Your task to perform on an android device: Show me productivity apps on the Play Store Image 0: 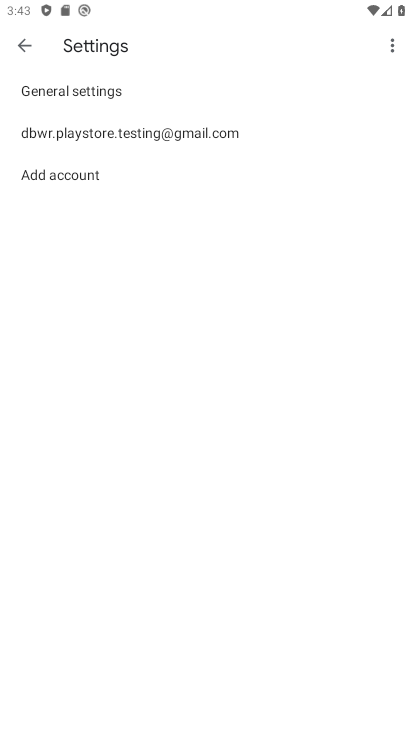
Step 0: press home button
Your task to perform on an android device: Show me productivity apps on the Play Store Image 1: 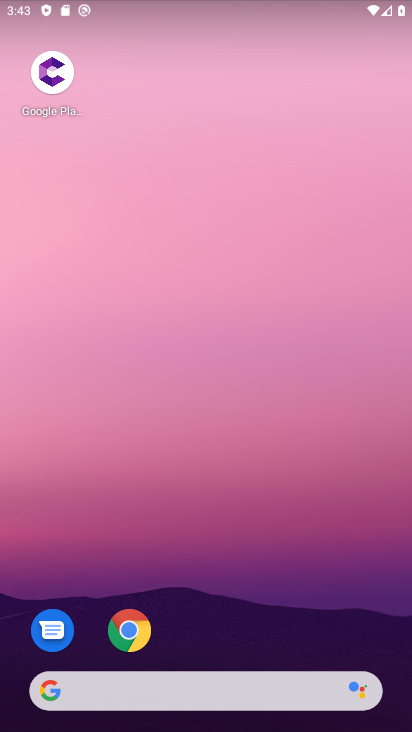
Step 1: drag from (296, 613) to (271, 21)
Your task to perform on an android device: Show me productivity apps on the Play Store Image 2: 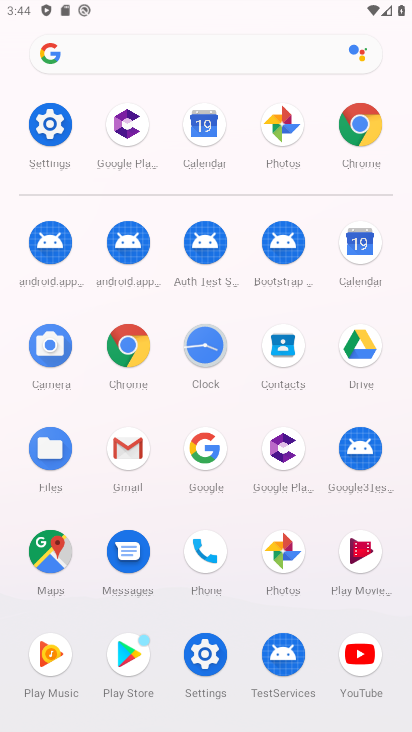
Step 2: click (128, 650)
Your task to perform on an android device: Show me productivity apps on the Play Store Image 3: 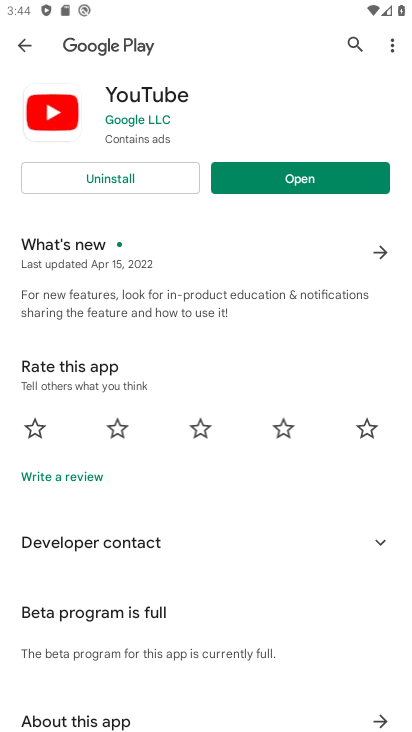
Step 3: drag from (267, 403) to (299, 582)
Your task to perform on an android device: Show me productivity apps on the Play Store Image 4: 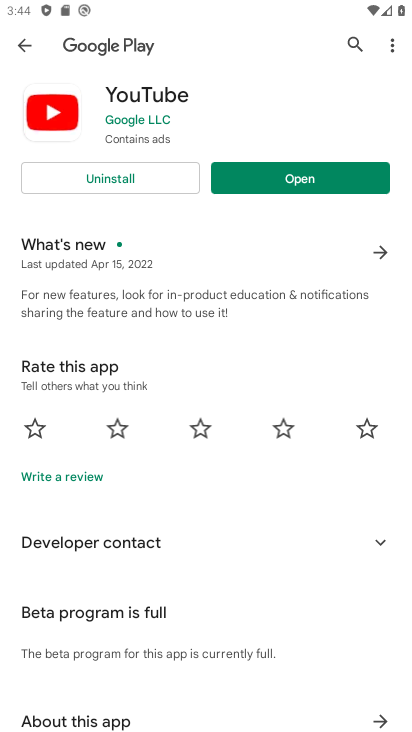
Step 4: click (19, 56)
Your task to perform on an android device: Show me productivity apps on the Play Store Image 5: 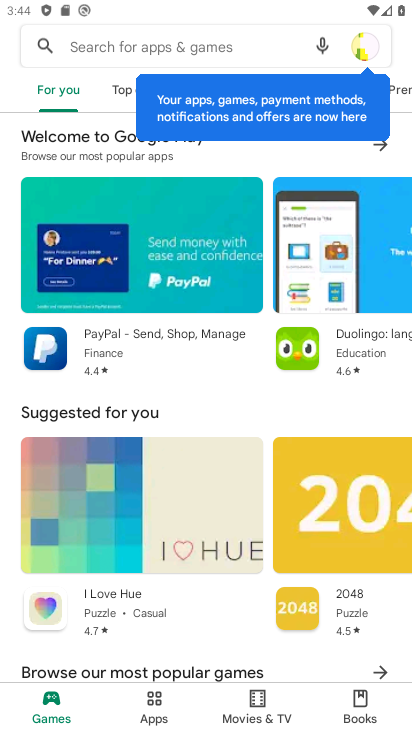
Step 5: click (305, 166)
Your task to perform on an android device: Show me productivity apps on the Play Store Image 6: 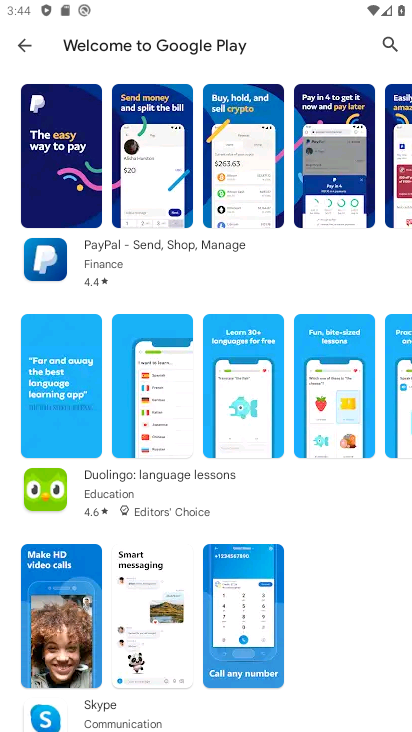
Step 6: click (35, 59)
Your task to perform on an android device: Show me productivity apps on the Play Store Image 7: 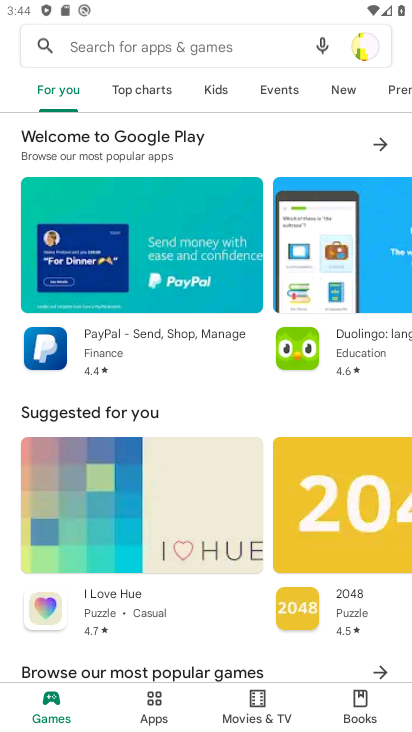
Step 7: drag from (279, 94) to (6, 116)
Your task to perform on an android device: Show me productivity apps on the Play Store Image 8: 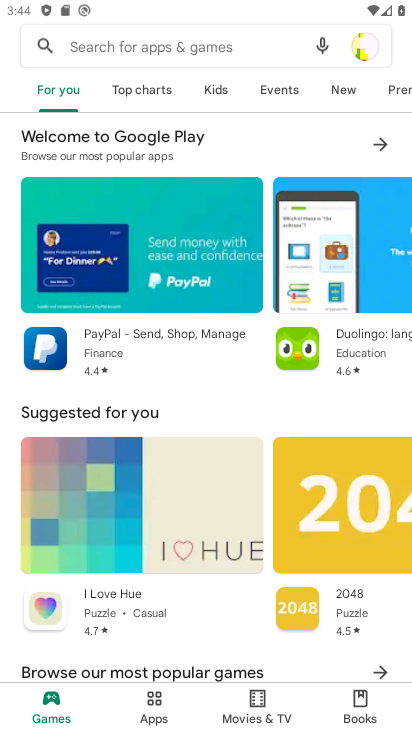
Step 8: drag from (175, 118) to (107, 125)
Your task to perform on an android device: Show me productivity apps on the Play Store Image 9: 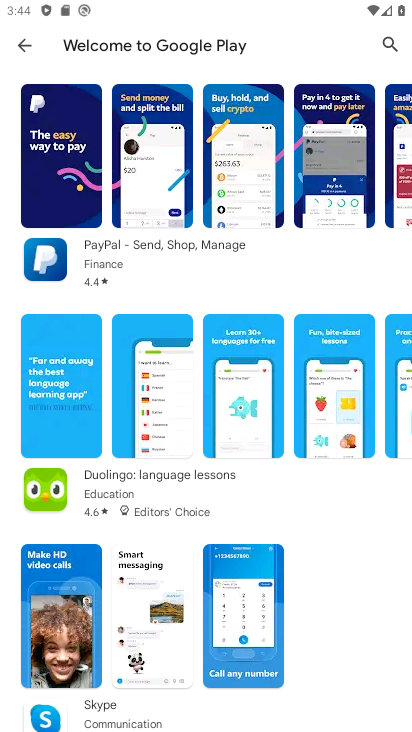
Step 9: drag from (339, 86) to (63, 132)
Your task to perform on an android device: Show me productivity apps on the Play Store Image 10: 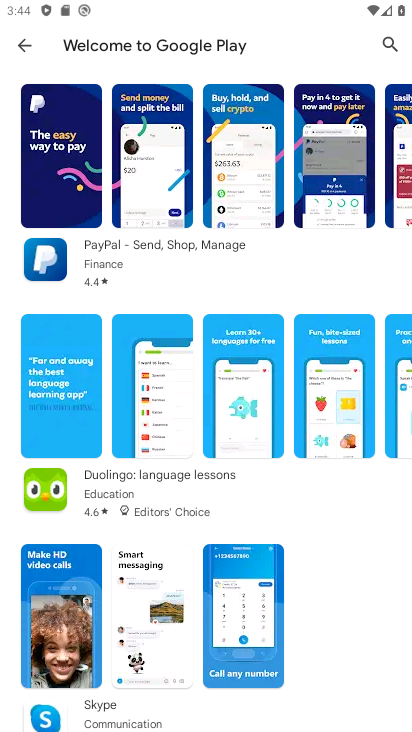
Step 10: click (26, 50)
Your task to perform on an android device: Show me productivity apps on the Play Store Image 11: 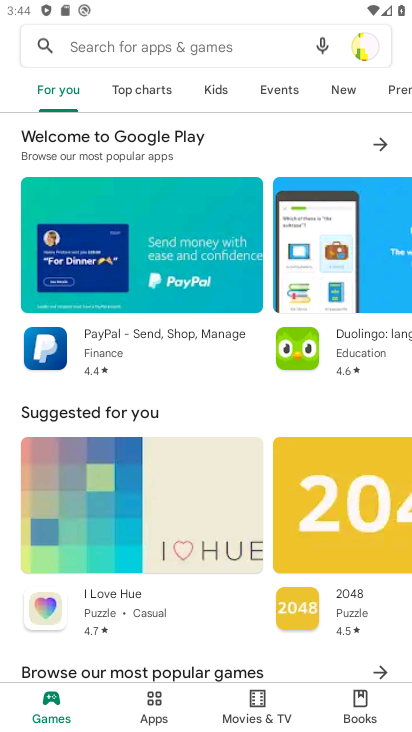
Step 11: task complete